Your task to perform on an android device: Search for hotels in Atlanta Image 0: 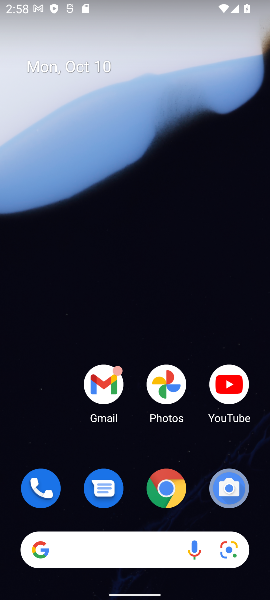
Step 0: click (123, 538)
Your task to perform on an android device: Search for hotels in Atlanta Image 1: 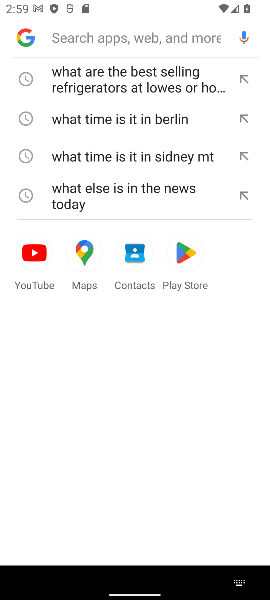
Step 1: click (99, 38)
Your task to perform on an android device: Search for hotels in Atlanta Image 2: 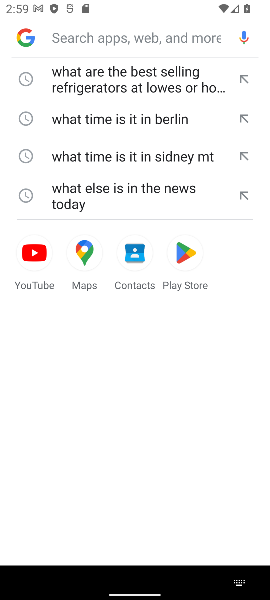
Step 2: type "Search for hotels in Atlanta"
Your task to perform on an android device: Search for hotels in Atlanta Image 3: 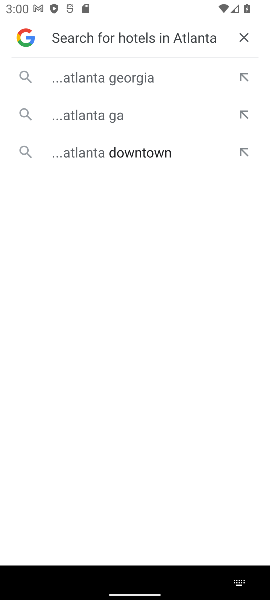
Step 3: click (164, 152)
Your task to perform on an android device: Search for hotels in Atlanta Image 4: 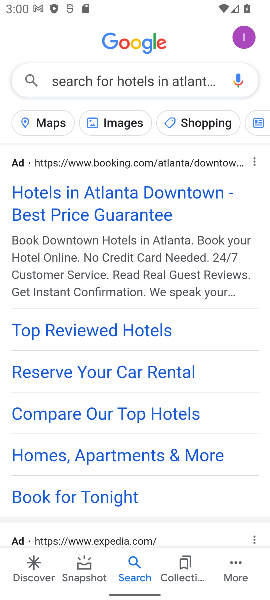
Step 4: task complete